Your task to perform on an android device: turn off location Image 0: 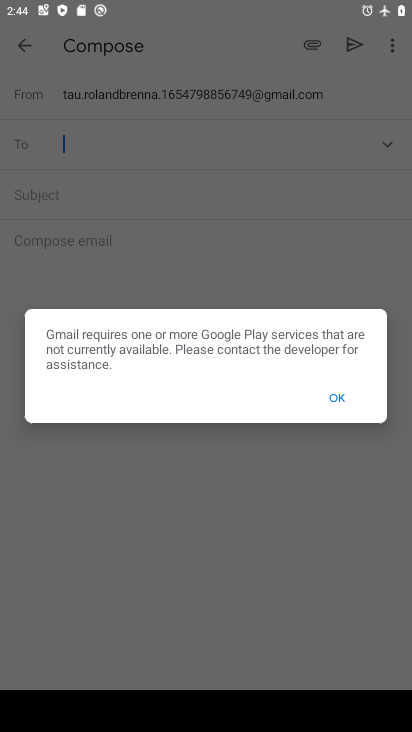
Step 0: task complete